Your task to perform on an android device: toggle notification dots Image 0: 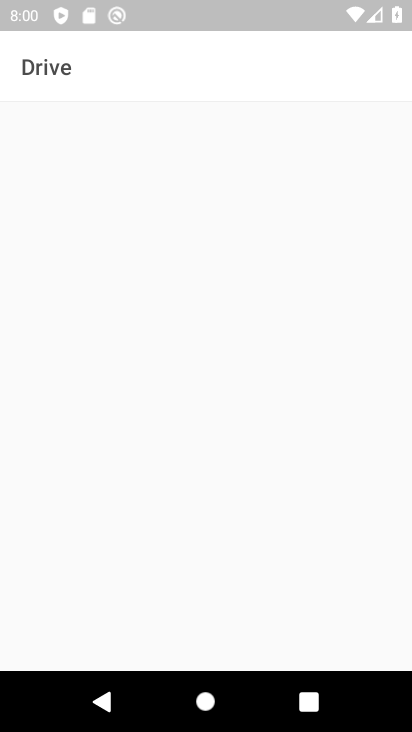
Step 0: press home button
Your task to perform on an android device: toggle notification dots Image 1: 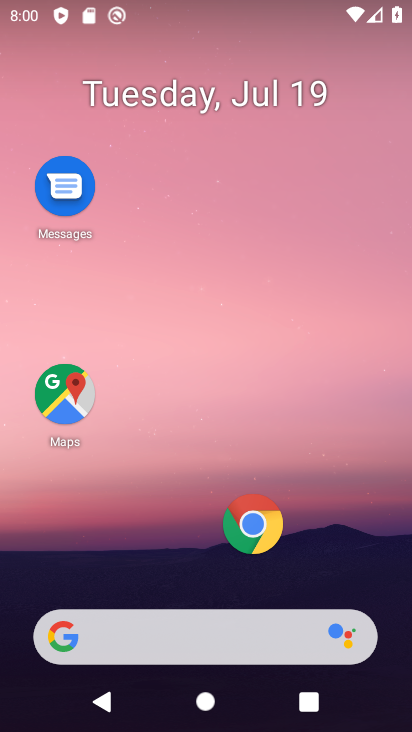
Step 1: drag from (204, 583) to (233, 10)
Your task to perform on an android device: toggle notification dots Image 2: 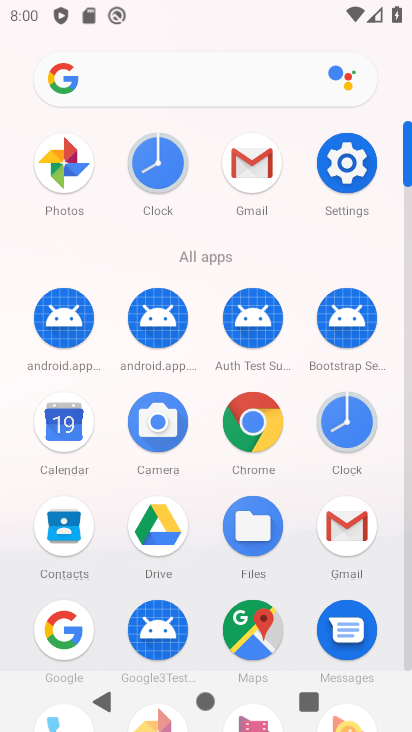
Step 2: click (359, 163)
Your task to perform on an android device: toggle notification dots Image 3: 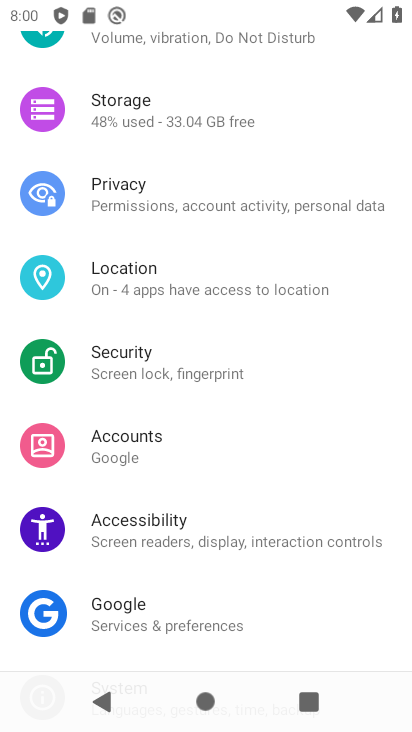
Step 3: drag from (359, 163) to (268, 596)
Your task to perform on an android device: toggle notification dots Image 4: 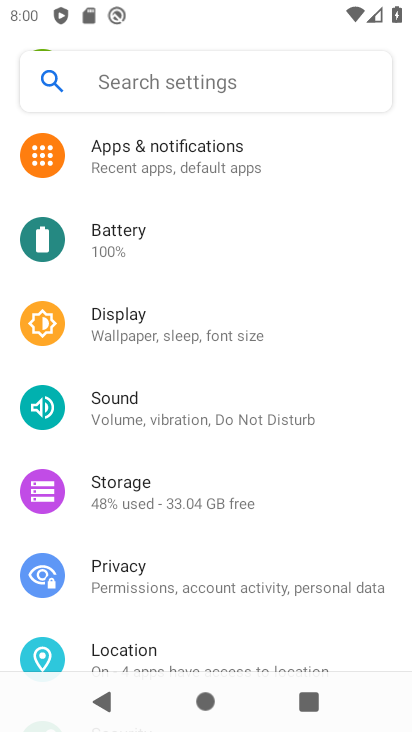
Step 4: click (158, 150)
Your task to perform on an android device: toggle notification dots Image 5: 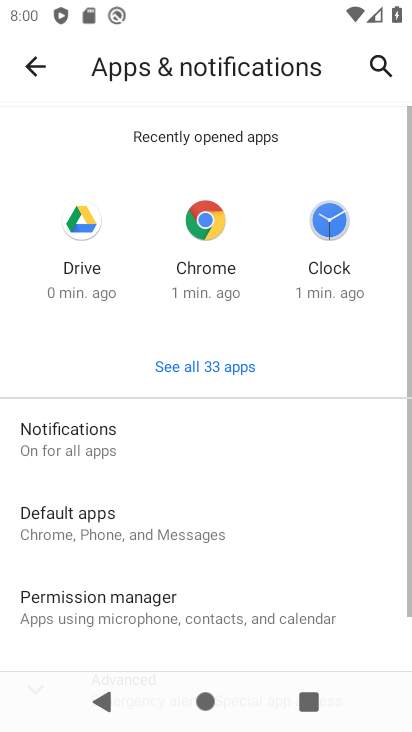
Step 5: click (79, 429)
Your task to perform on an android device: toggle notification dots Image 6: 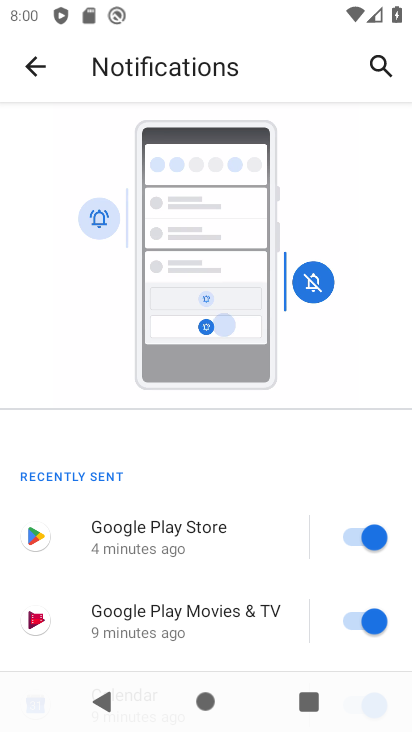
Step 6: drag from (253, 457) to (258, 25)
Your task to perform on an android device: toggle notification dots Image 7: 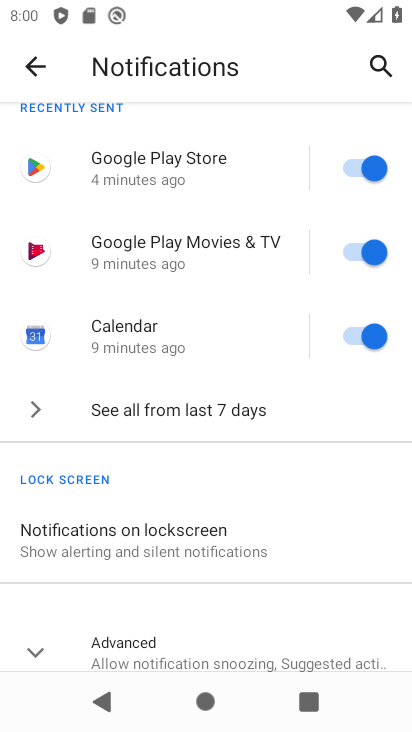
Step 7: click (121, 644)
Your task to perform on an android device: toggle notification dots Image 8: 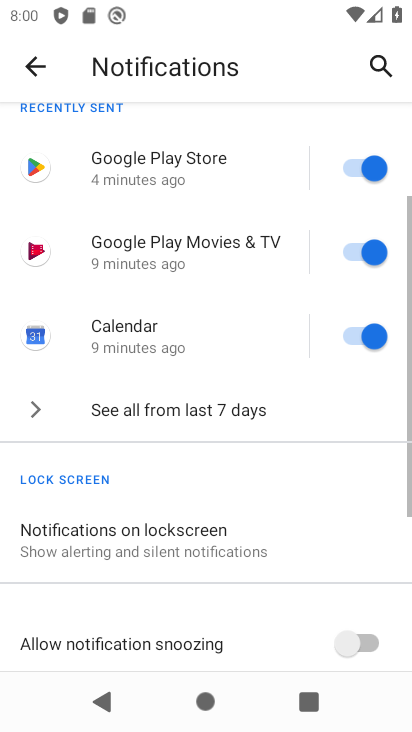
Step 8: drag from (121, 644) to (111, 234)
Your task to perform on an android device: toggle notification dots Image 9: 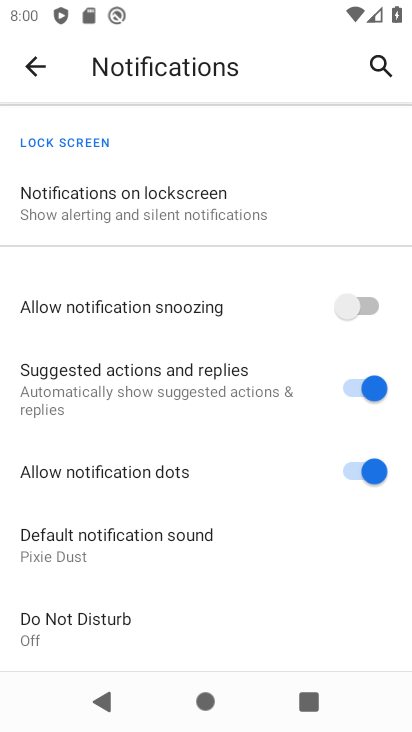
Step 9: click (368, 466)
Your task to perform on an android device: toggle notification dots Image 10: 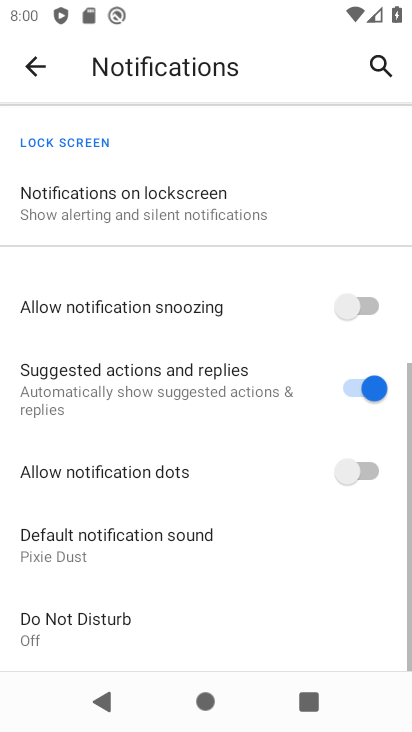
Step 10: task complete